Your task to perform on an android device: find photos in the google photos app Image 0: 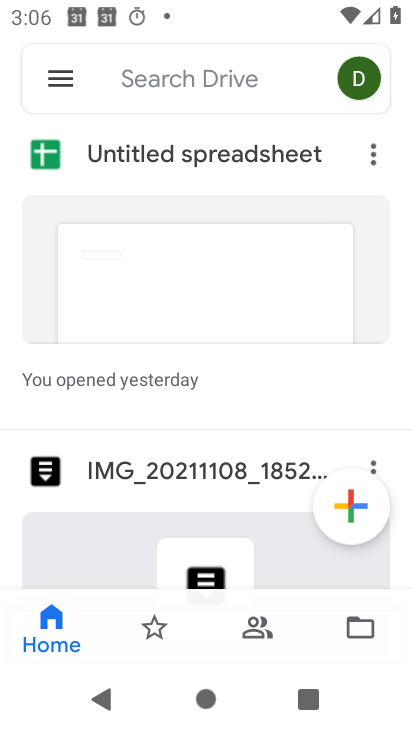
Step 0: press home button
Your task to perform on an android device: find photos in the google photos app Image 1: 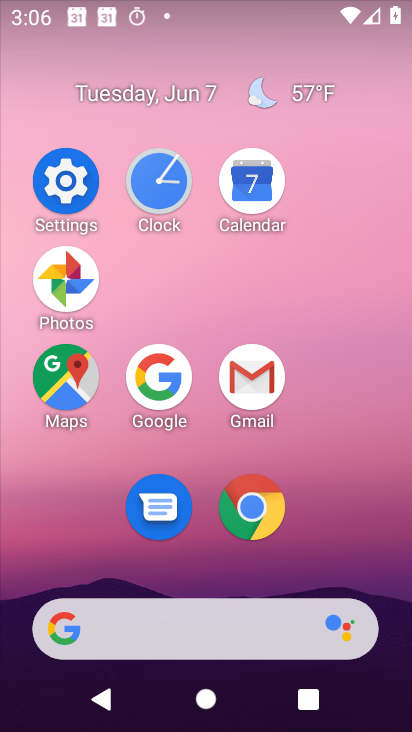
Step 1: click (82, 284)
Your task to perform on an android device: find photos in the google photos app Image 2: 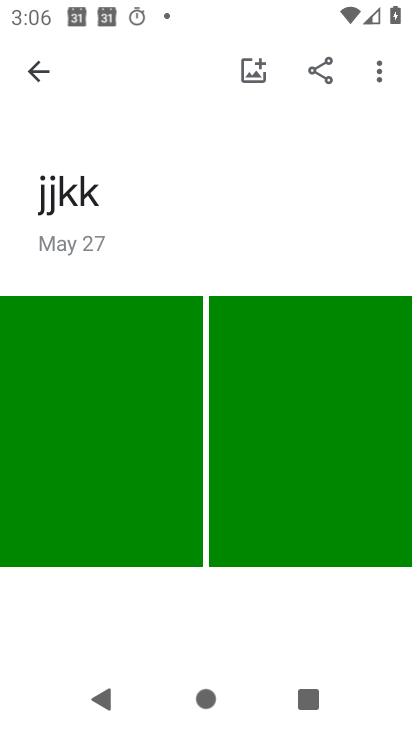
Step 2: click (44, 87)
Your task to perform on an android device: find photos in the google photos app Image 3: 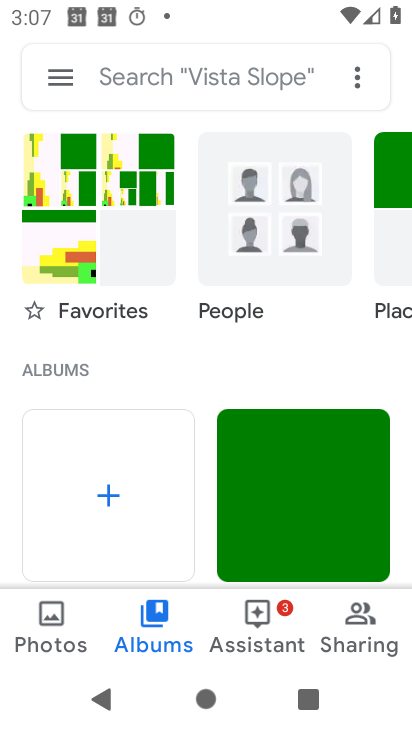
Step 3: click (43, 616)
Your task to perform on an android device: find photos in the google photos app Image 4: 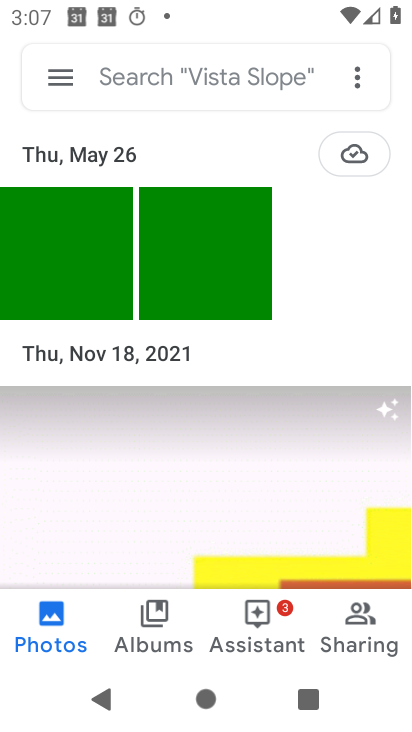
Step 4: task complete